Your task to perform on an android device: Do I have any events tomorrow? Image 0: 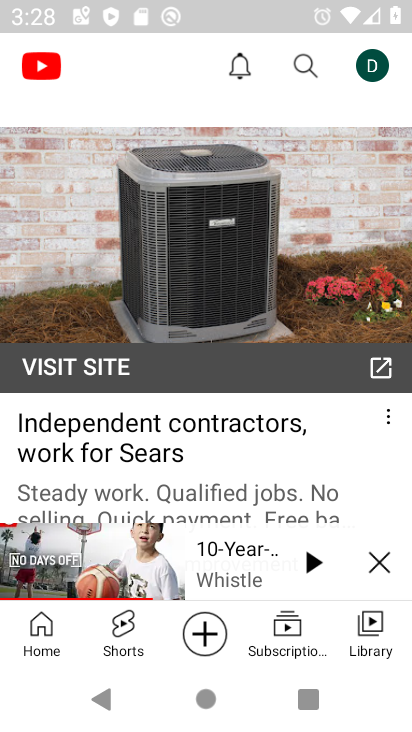
Step 0: click (378, 560)
Your task to perform on an android device: Do I have any events tomorrow? Image 1: 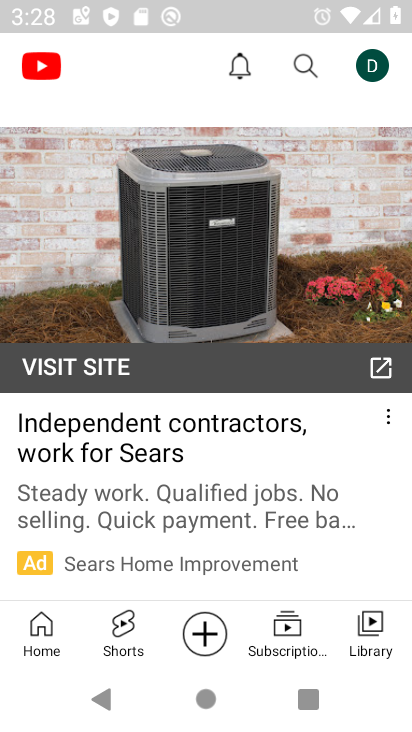
Step 1: press home button
Your task to perform on an android device: Do I have any events tomorrow? Image 2: 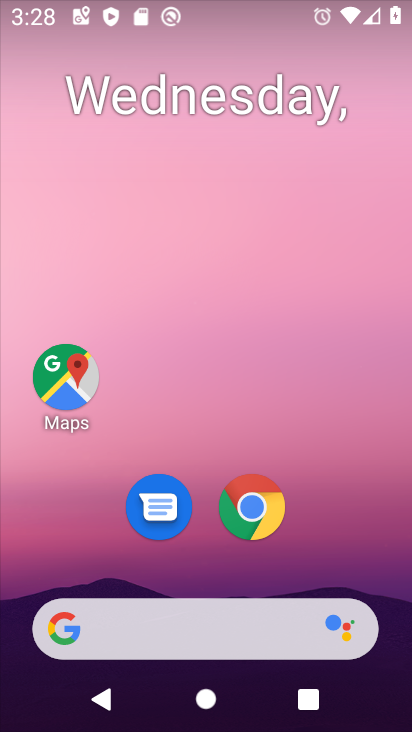
Step 2: drag from (325, 577) to (358, 0)
Your task to perform on an android device: Do I have any events tomorrow? Image 3: 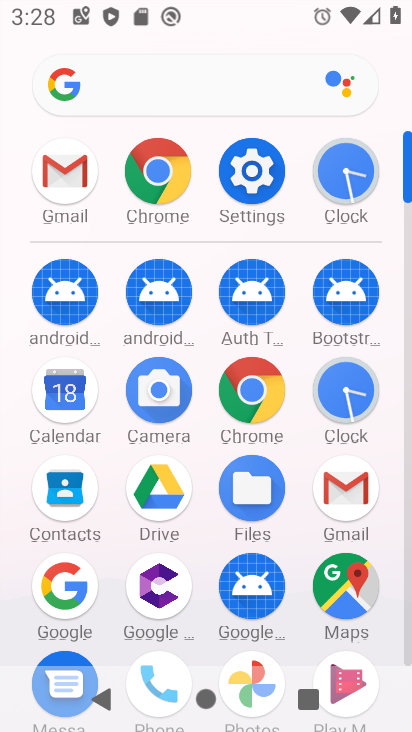
Step 3: click (80, 403)
Your task to perform on an android device: Do I have any events tomorrow? Image 4: 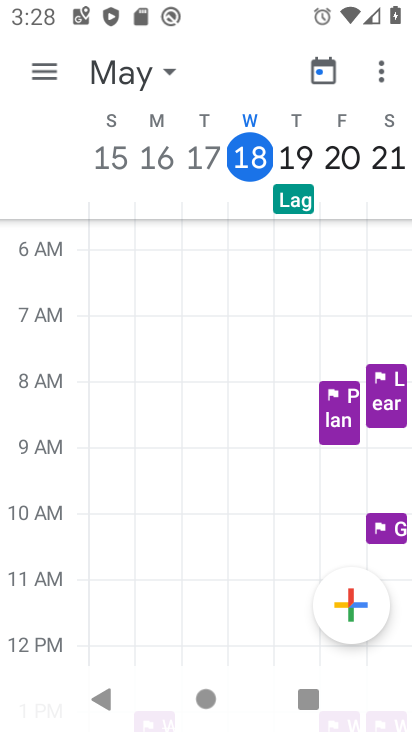
Step 4: click (45, 64)
Your task to perform on an android device: Do I have any events tomorrow? Image 5: 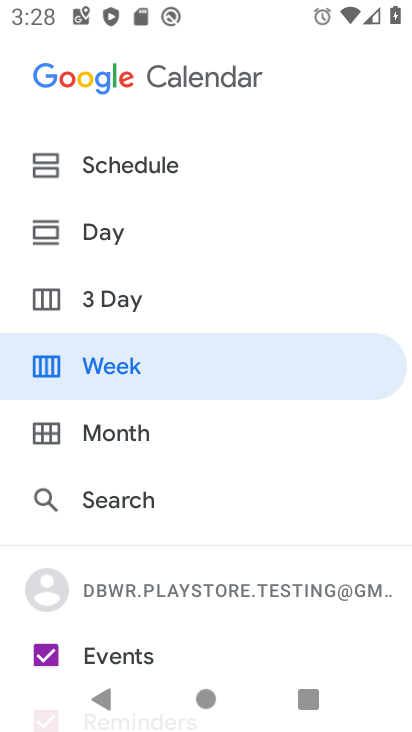
Step 5: click (103, 660)
Your task to perform on an android device: Do I have any events tomorrow? Image 6: 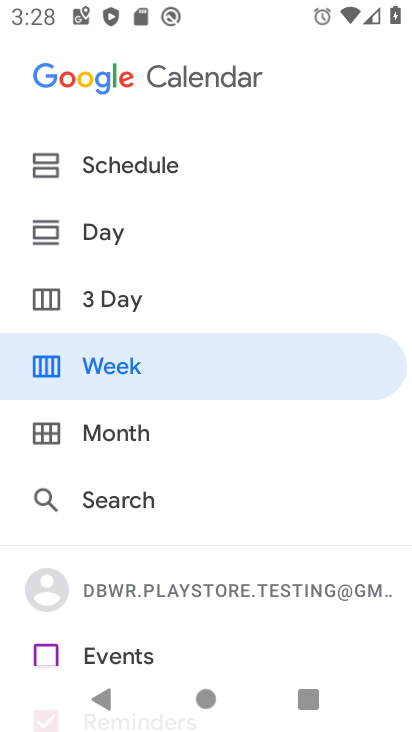
Step 6: click (103, 660)
Your task to perform on an android device: Do I have any events tomorrow? Image 7: 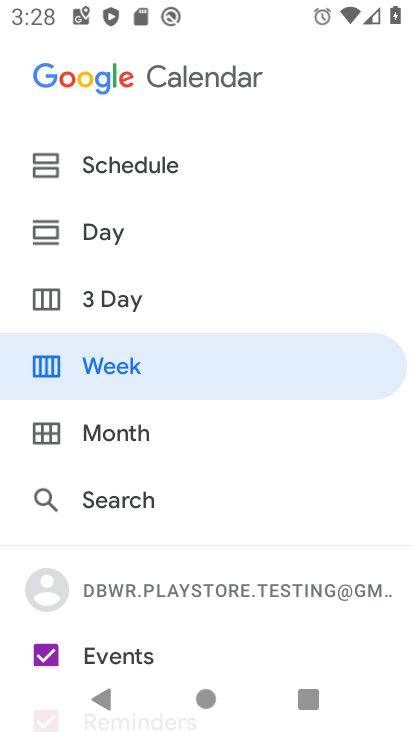
Step 7: click (121, 304)
Your task to perform on an android device: Do I have any events tomorrow? Image 8: 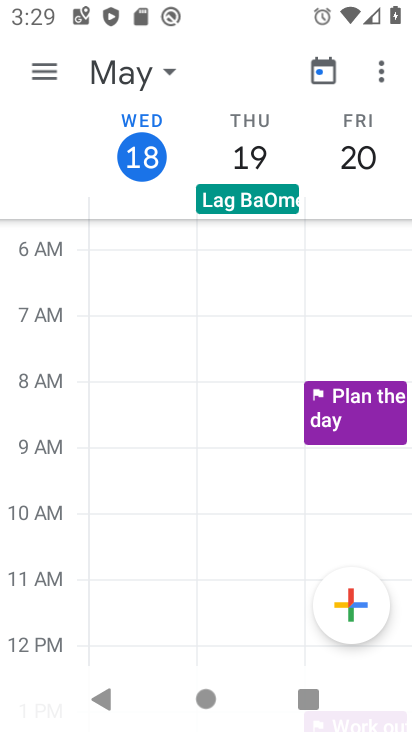
Step 8: task complete